Your task to perform on an android device: see tabs open on other devices in the chrome app Image 0: 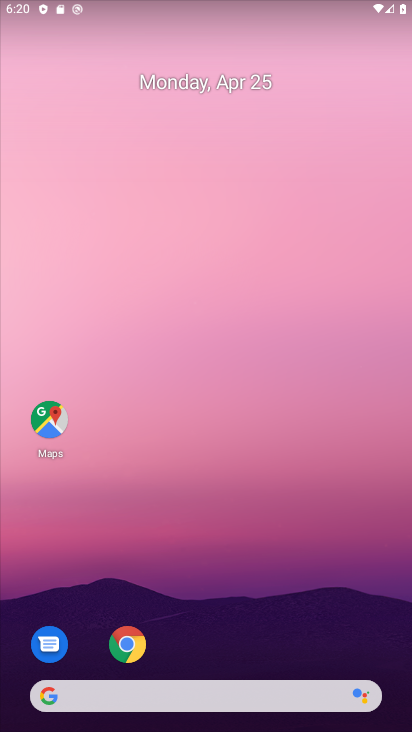
Step 0: drag from (327, 221) to (332, 94)
Your task to perform on an android device: see tabs open on other devices in the chrome app Image 1: 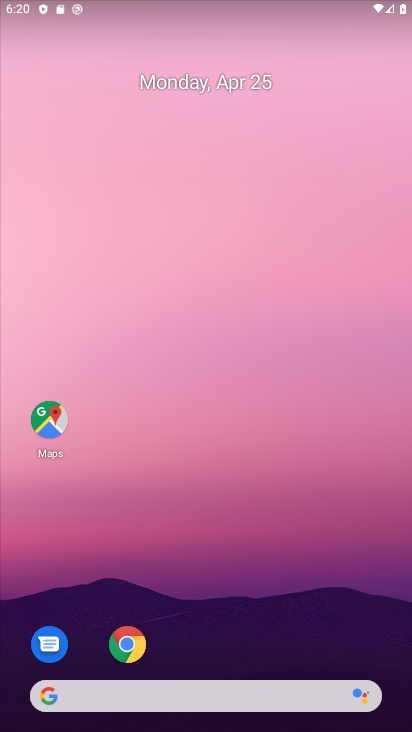
Step 1: click (131, 639)
Your task to perform on an android device: see tabs open on other devices in the chrome app Image 2: 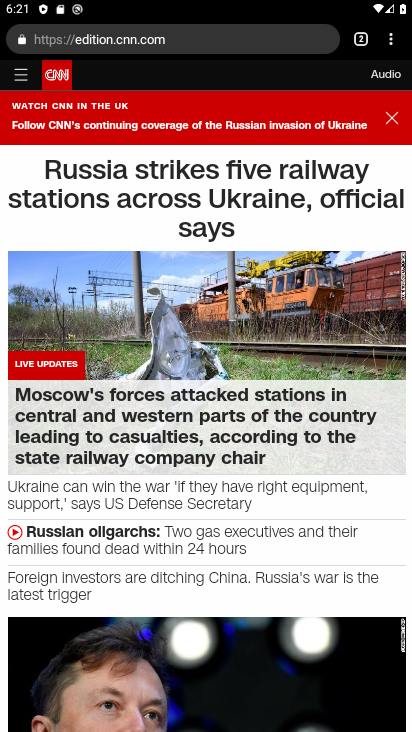
Step 2: click (396, 40)
Your task to perform on an android device: see tabs open on other devices in the chrome app Image 3: 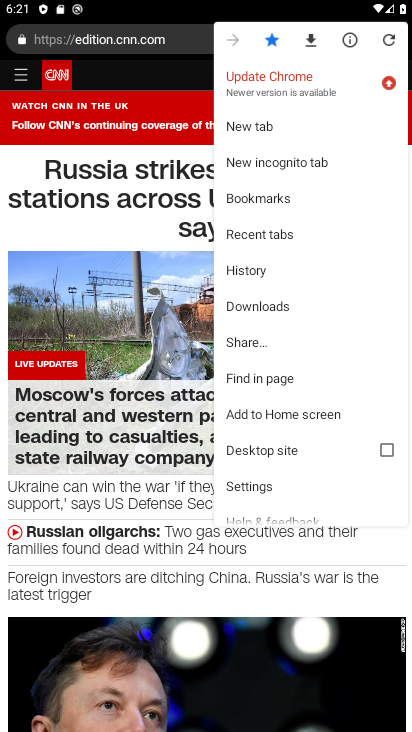
Step 3: click (267, 232)
Your task to perform on an android device: see tabs open on other devices in the chrome app Image 4: 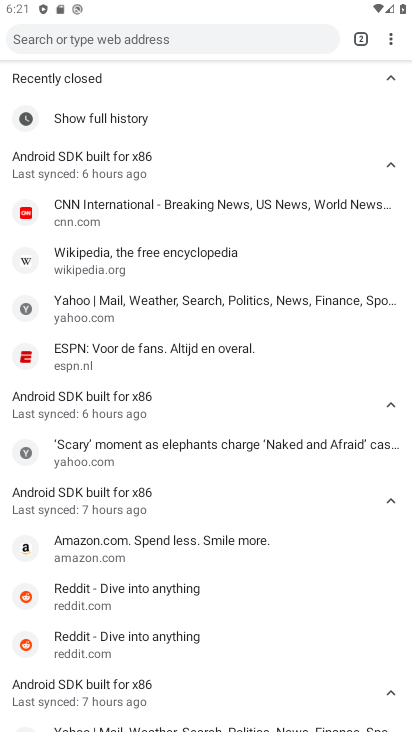
Step 4: task complete